Your task to perform on an android device: toggle notifications settings in the gmail app Image 0: 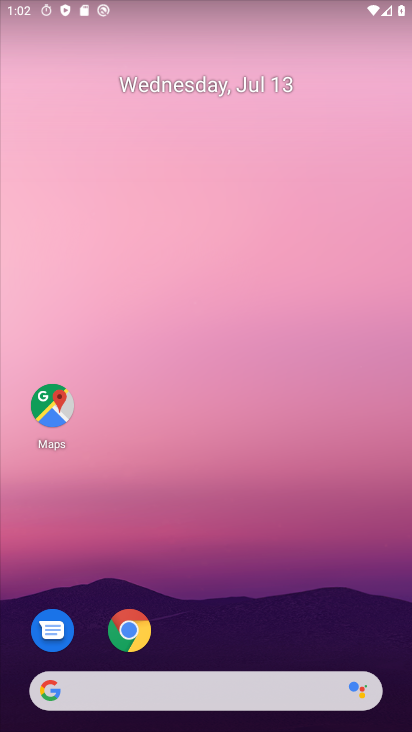
Step 0: drag from (246, 585) to (139, 102)
Your task to perform on an android device: toggle notifications settings in the gmail app Image 1: 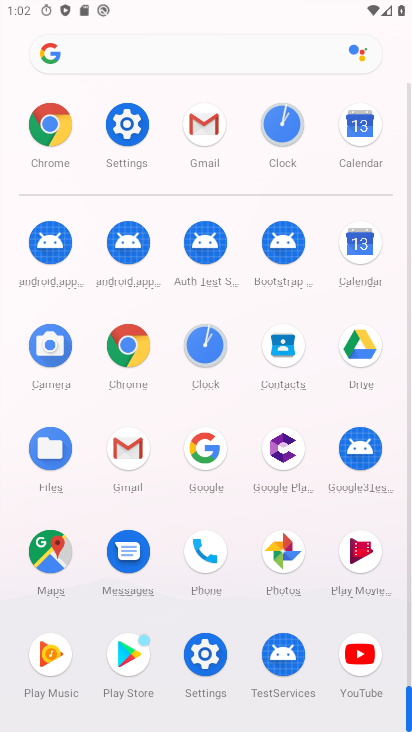
Step 1: click (216, 134)
Your task to perform on an android device: toggle notifications settings in the gmail app Image 2: 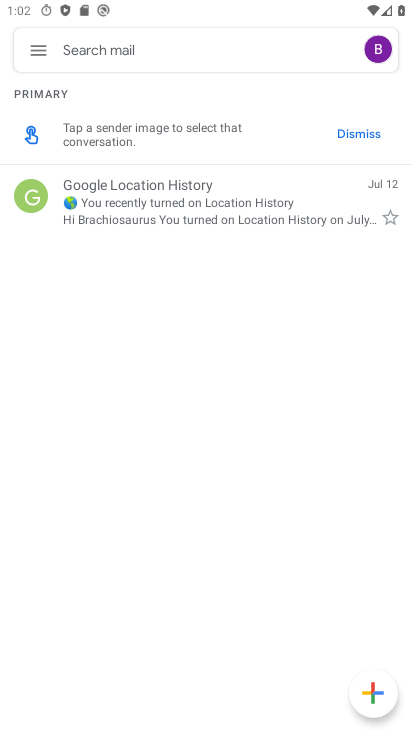
Step 2: click (27, 55)
Your task to perform on an android device: toggle notifications settings in the gmail app Image 3: 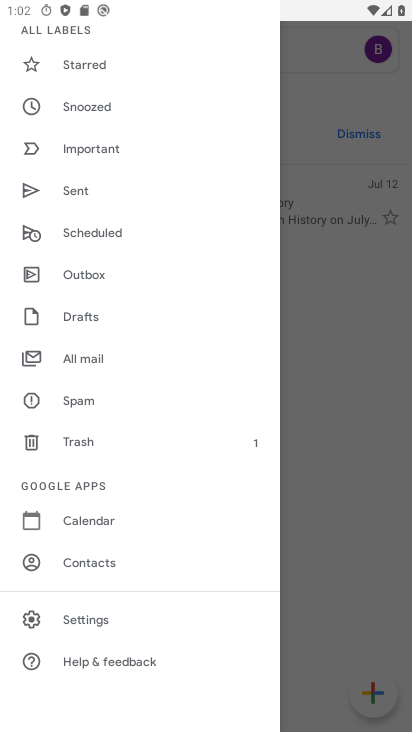
Step 3: click (105, 617)
Your task to perform on an android device: toggle notifications settings in the gmail app Image 4: 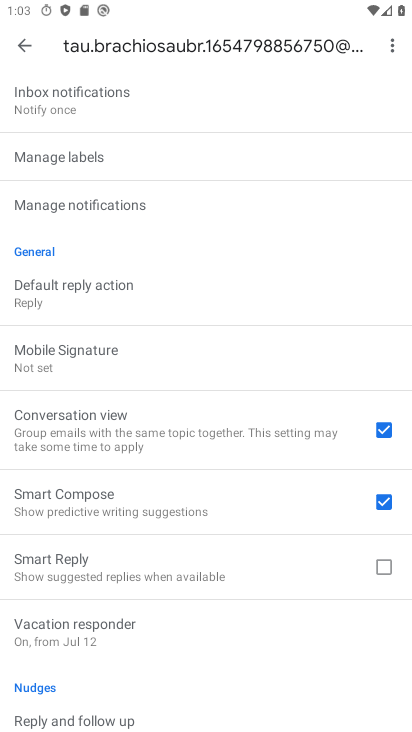
Step 4: drag from (77, 138) to (26, 367)
Your task to perform on an android device: toggle notifications settings in the gmail app Image 5: 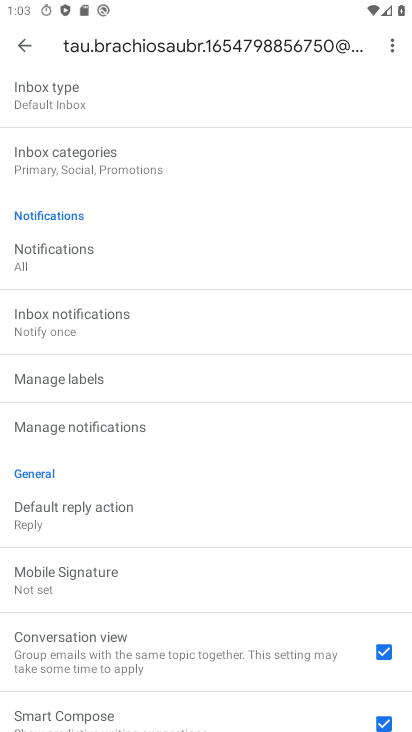
Step 5: drag from (21, 136) to (85, 375)
Your task to perform on an android device: toggle notifications settings in the gmail app Image 6: 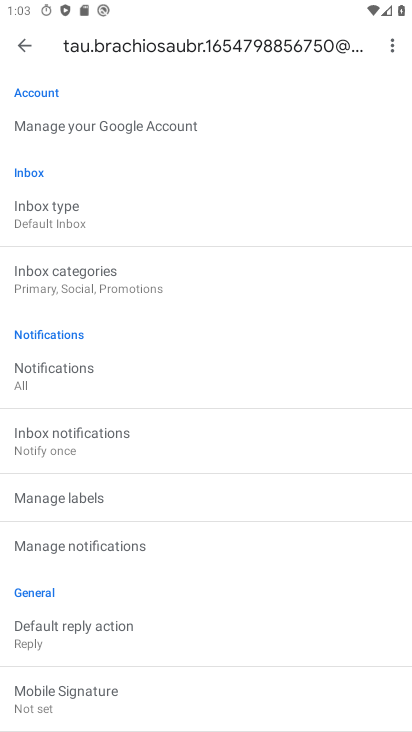
Step 6: drag from (61, 190) to (94, 412)
Your task to perform on an android device: toggle notifications settings in the gmail app Image 7: 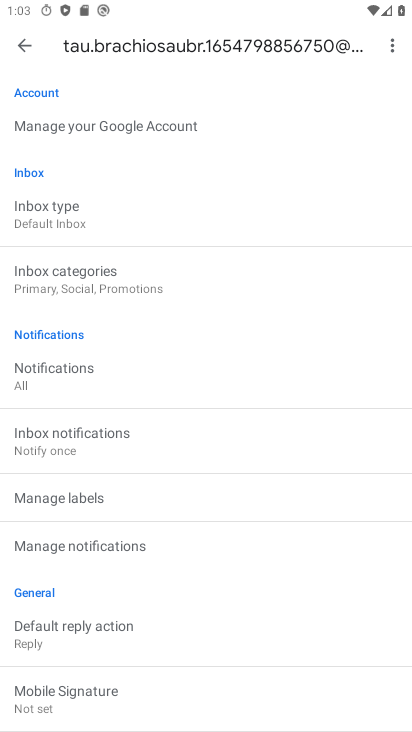
Step 7: click (59, 384)
Your task to perform on an android device: toggle notifications settings in the gmail app Image 8: 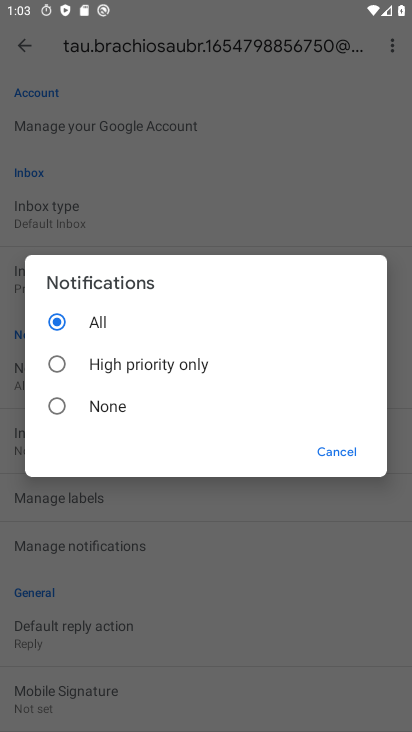
Step 8: click (47, 369)
Your task to perform on an android device: toggle notifications settings in the gmail app Image 9: 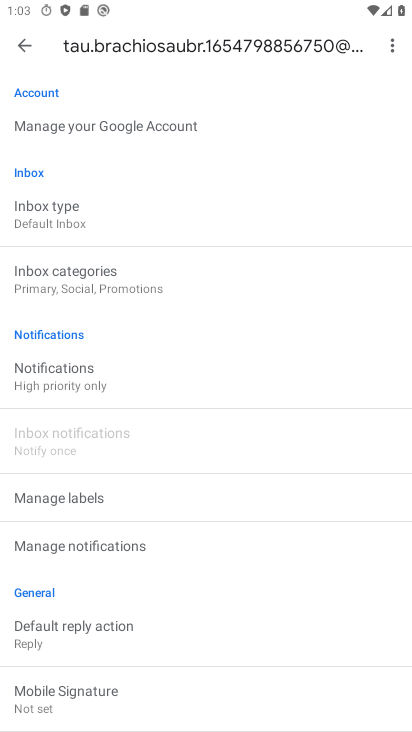
Step 9: task complete